Your task to perform on an android device: Is it going to rain this weekend? Image 0: 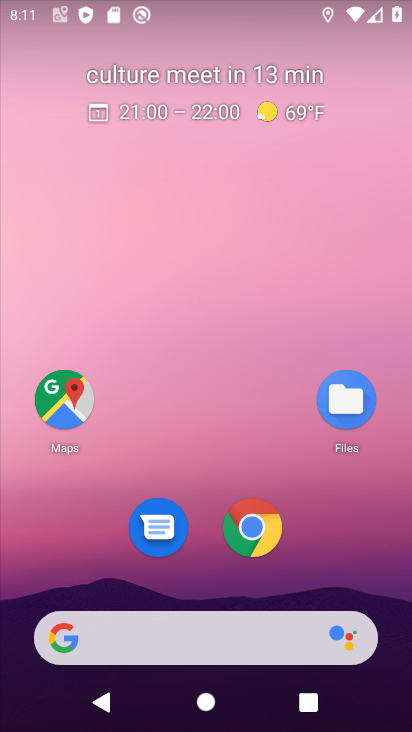
Step 0: drag from (310, 565) to (268, 150)
Your task to perform on an android device: Is it going to rain this weekend? Image 1: 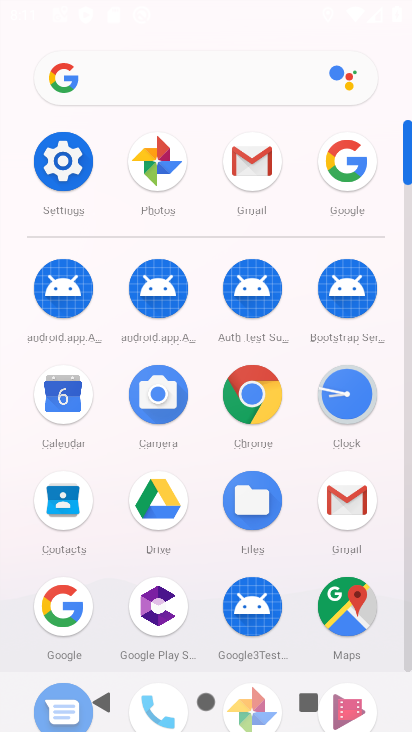
Step 1: click (68, 614)
Your task to perform on an android device: Is it going to rain this weekend? Image 2: 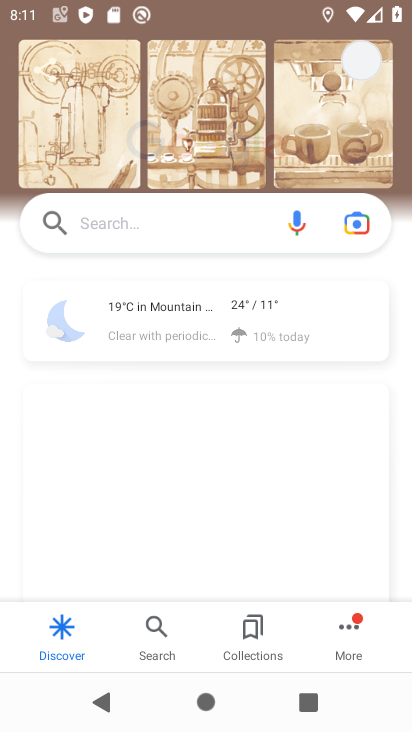
Step 2: click (173, 234)
Your task to perform on an android device: Is it going to rain this weekend? Image 3: 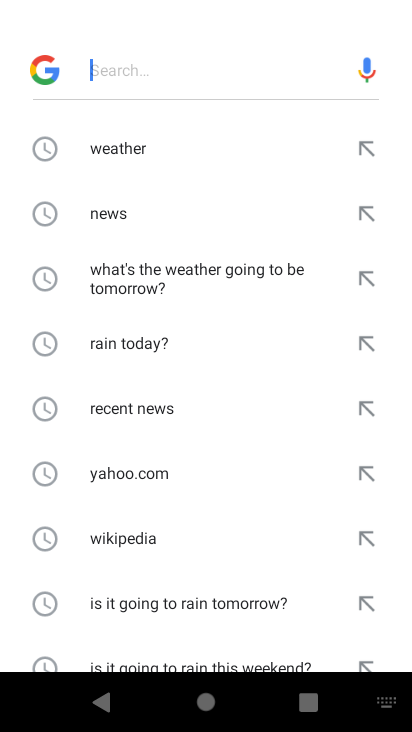
Step 3: drag from (205, 510) to (169, 321)
Your task to perform on an android device: Is it going to rain this weekend? Image 4: 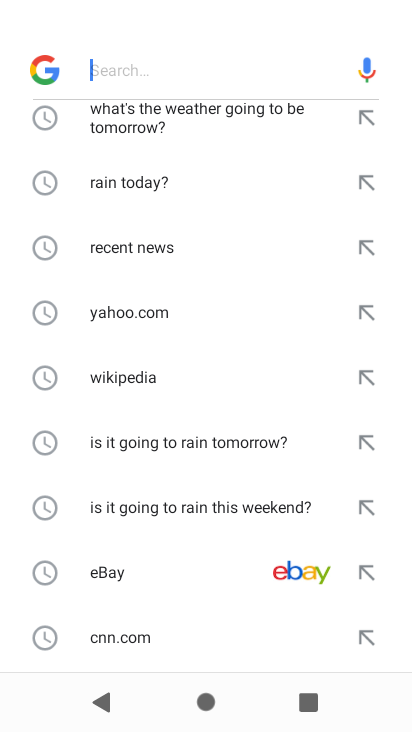
Step 4: click (185, 515)
Your task to perform on an android device: Is it going to rain this weekend? Image 5: 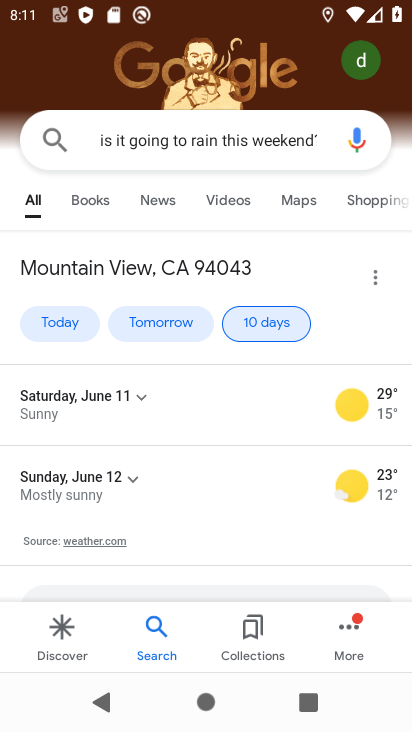
Step 5: task complete